Your task to perform on an android device: turn off javascript in the chrome app Image 0: 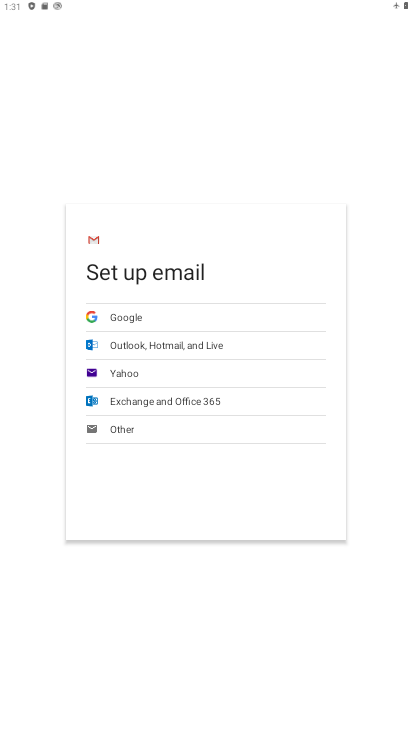
Step 0: drag from (272, 686) to (340, 214)
Your task to perform on an android device: turn off javascript in the chrome app Image 1: 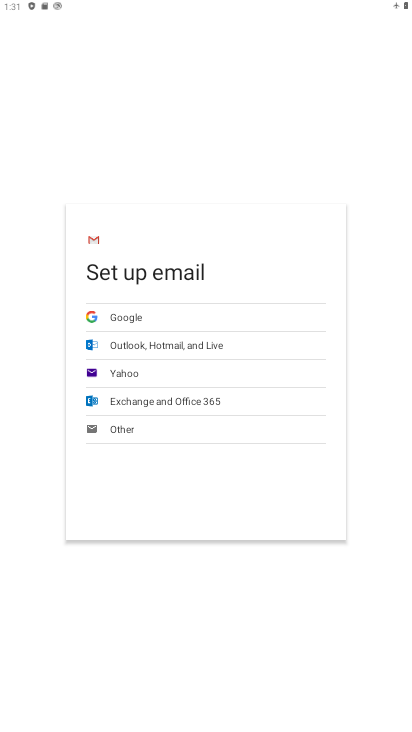
Step 1: press home button
Your task to perform on an android device: turn off javascript in the chrome app Image 2: 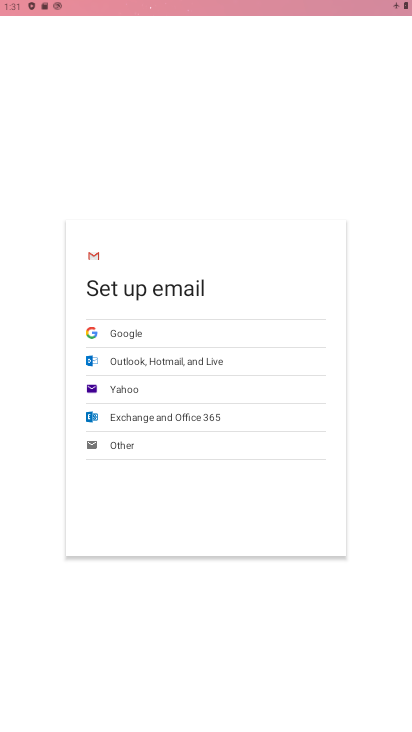
Step 2: press home button
Your task to perform on an android device: turn off javascript in the chrome app Image 3: 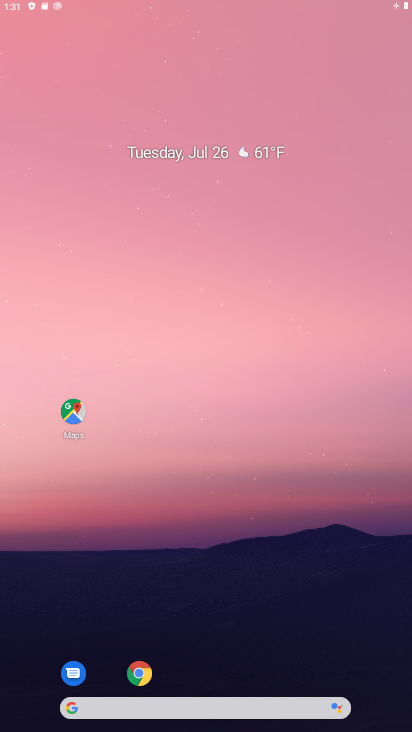
Step 3: press home button
Your task to perform on an android device: turn off javascript in the chrome app Image 4: 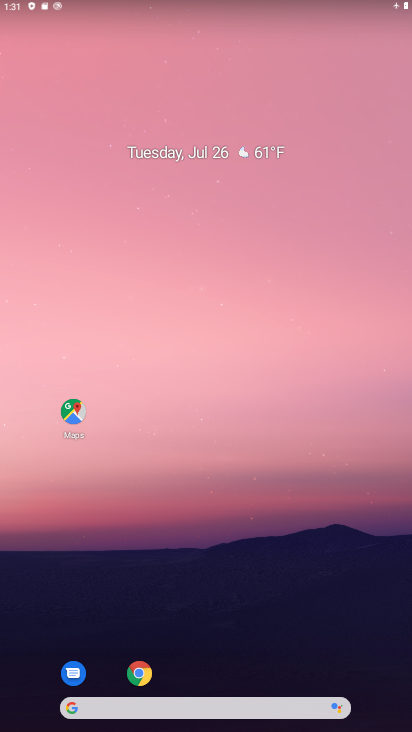
Step 4: drag from (187, 612) to (279, 225)
Your task to perform on an android device: turn off javascript in the chrome app Image 5: 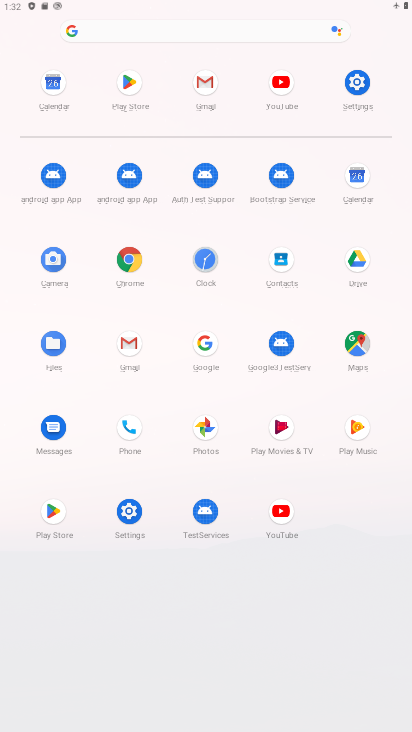
Step 5: click (125, 249)
Your task to perform on an android device: turn off javascript in the chrome app Image 6: 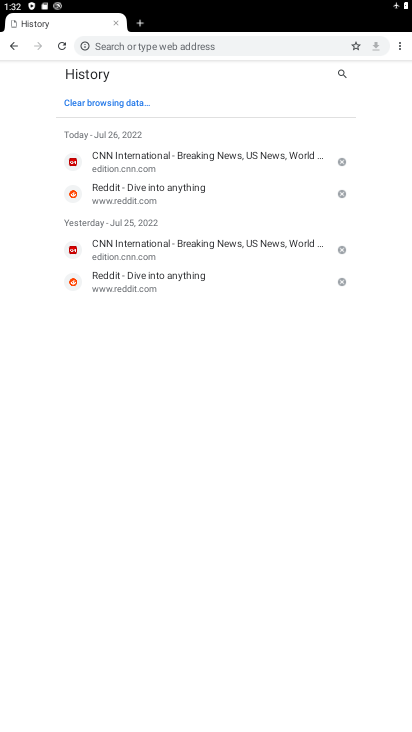
Step 6: click (92, 99)
Your task to perform on an android device: turn off javascript in the chrome app Image 7: 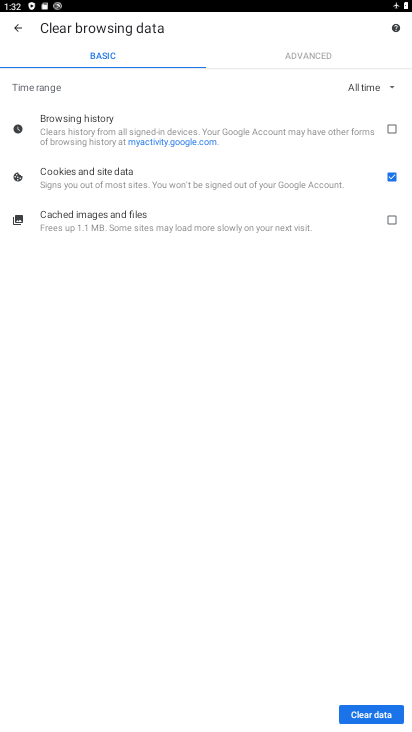
Step 7: click (29, 33)
Your task to perform on an android device: turn off javascript in the chrome app Image 8: 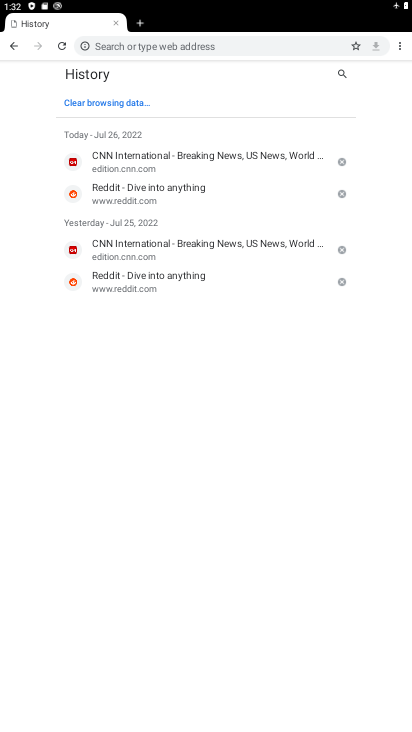
Step 8: click (7, 27)
Your task to perform on an android device: turn off javascript in the chrome app Image 9: 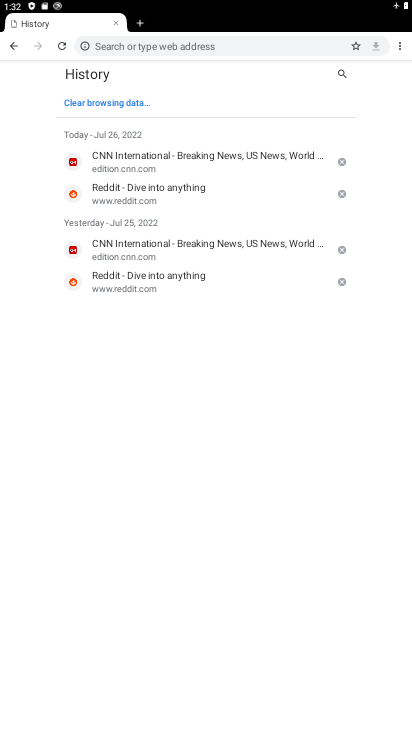
Step 9: drag from (399, 43) to (312, 213)
Your task to perform on an android device: turn off javascript in the chrome app Image 10: 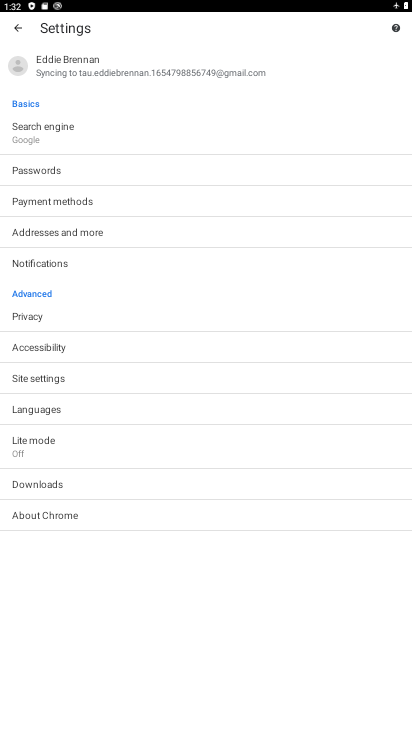
Step 10: drag from (142, 574) to (206, 295)
Your task to perform on an android device: turn off javascript in the chrome app Image 11: 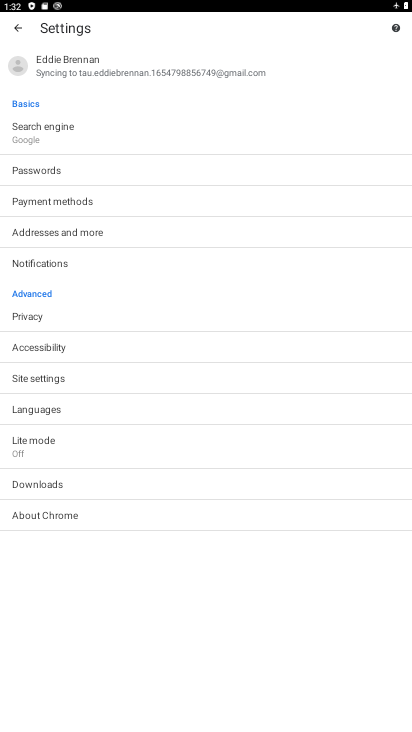
Step 11: click (68, 378)
Your task to perform on an android device: turn off javascript in the chrome app Image 12: 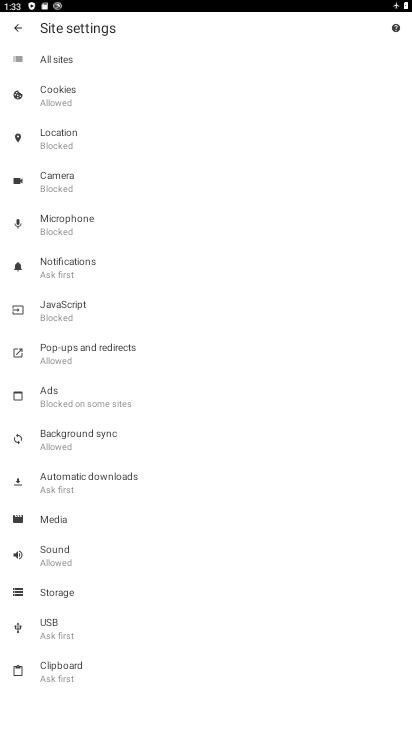
Step 12: click (103, 310)
Your task to perform on an android device: turn off javascript in the chrome app Image 13: 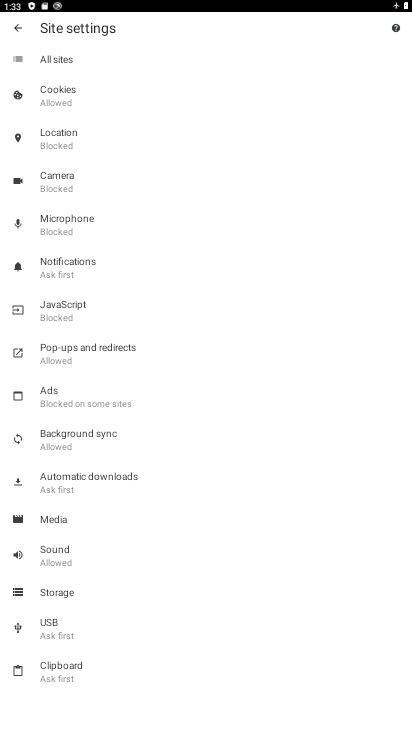
Step 13: click (103, 310)
Your task to perform on an android device: turn off javascript in the chrome app Image 14: 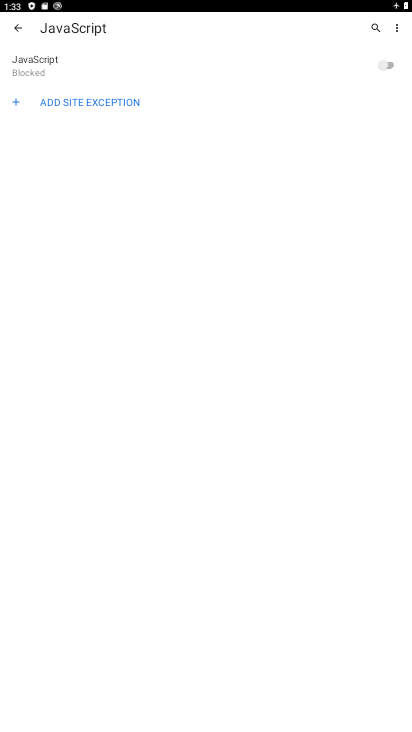
Step 14: task complete